Your task to perform on an android device: Open the web browser Image 0: 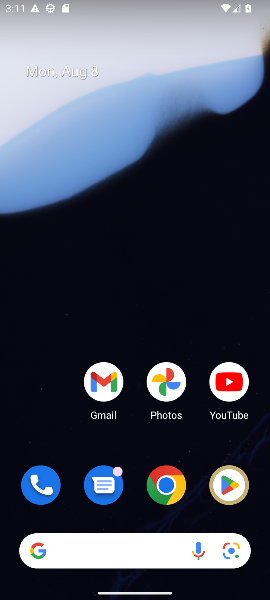
Step 0: click (170, 480)
Your task to perform on an android device: Open the web browser Image 1: 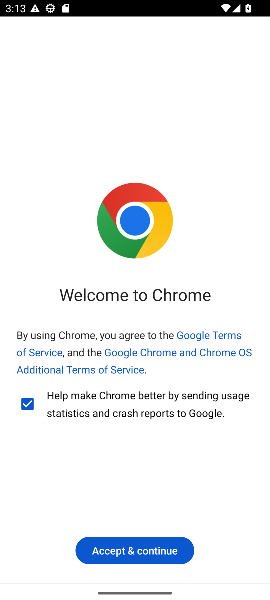
Step 1: click (131, 557)
Your task to perform on an android device: Open the web browser Image 2: 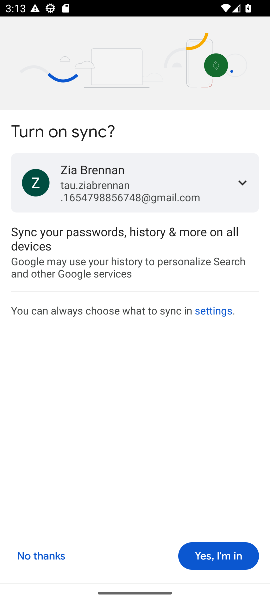
Step 2: click (210, 557)
Your task to perform on an android device: Open the web browser Image 3: 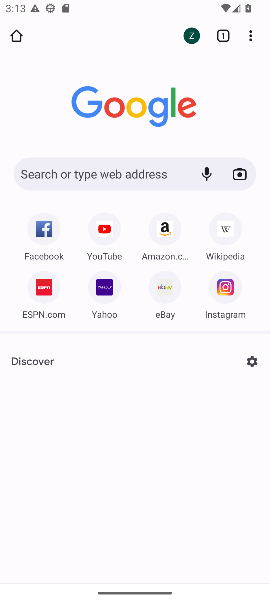
Step 3: task complete